Your task to perform on an android device: Search for Mexican restaurants on Maps Image 0: 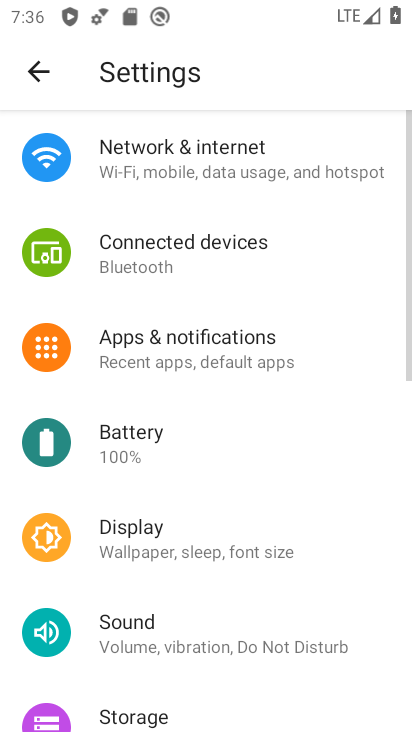
Step 0: press home button
Your task to perform on an android device: Search for Mexican restaurants on Maps Image 1: 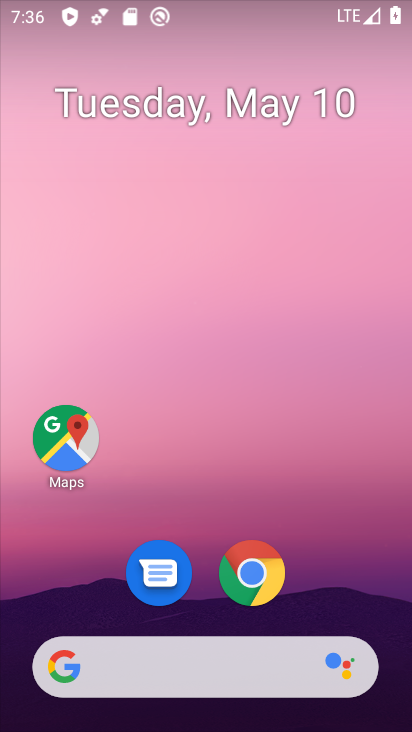
Step 1: click (84, 437)
Your task to perform on an android device: Search for Mexican restaurants on Maps Image 2: 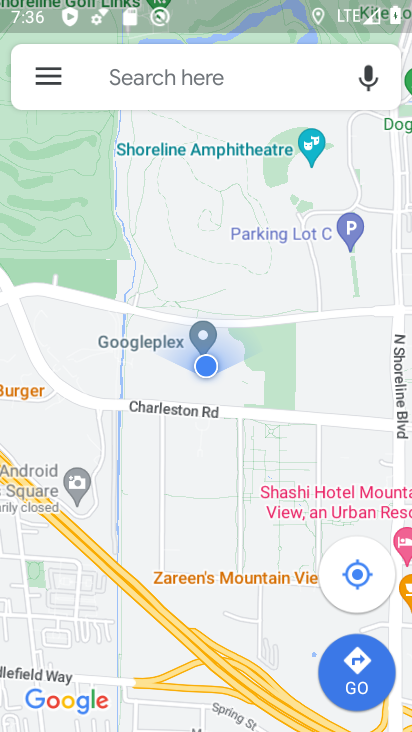
Step 2: click (182, 67)
Your task to perform on an android device: Search for Mexican restaurants on Maps Image 3: 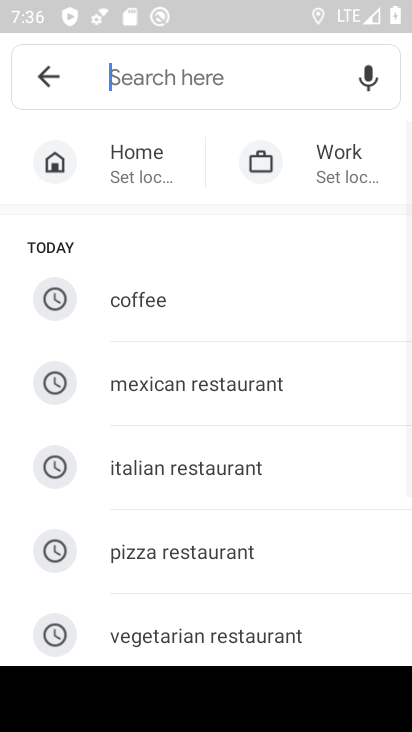
Step 3: click (231, 373)
Your task to perform on an android device: Search for Mexican restaurants on Maps Image 4: 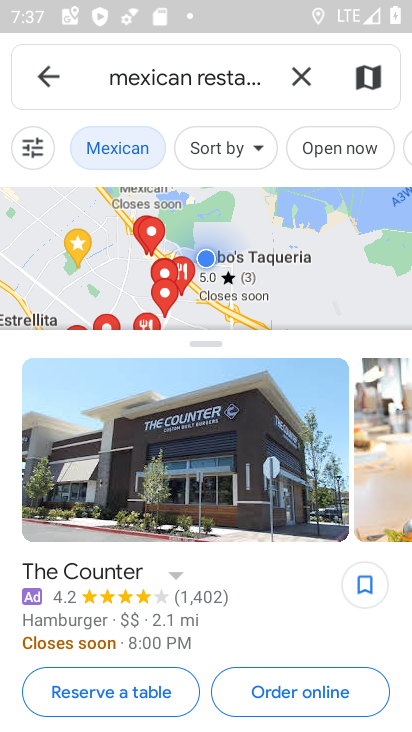
Step 4: task complete